Your task to perform on an android device: Go to location settings Image 0: 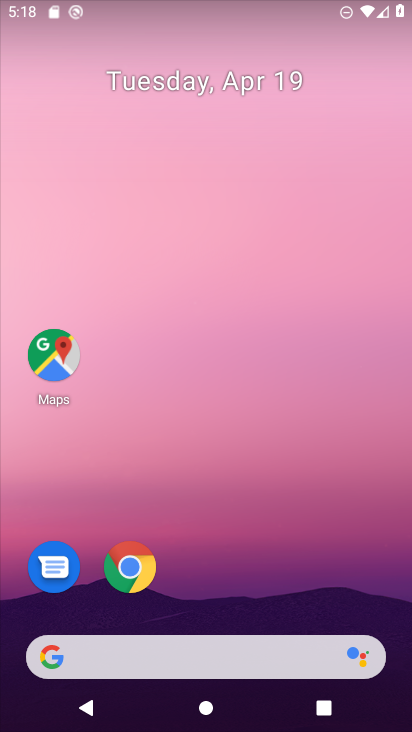
Step 0: drag from (299, 564) to (273, 1)
Your task to perform on an android device: Go to location settings Image 1: 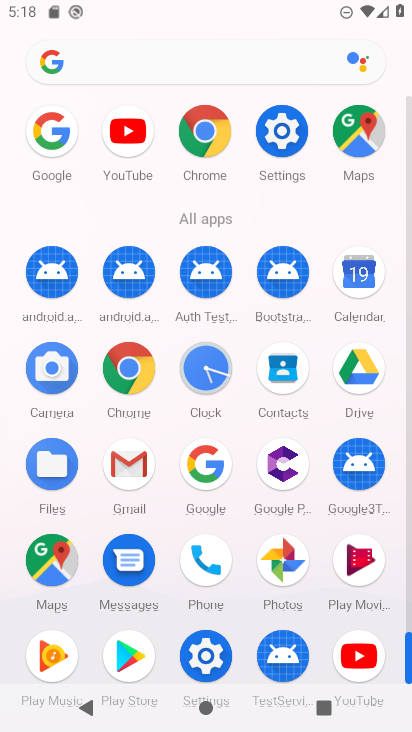
Step 1: click (280, 131)
Your task to perform on an android device: Go to location settings Image 2: 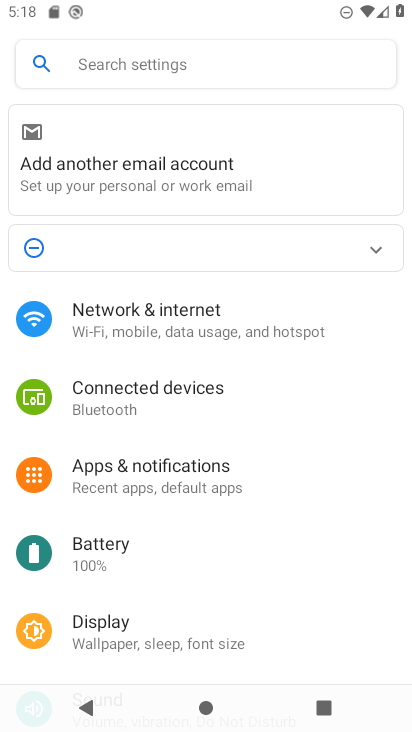
Step 2: drag from (237, 489) to (229, 95)
Your task to perform on an android device: Go to location settings Image 3: 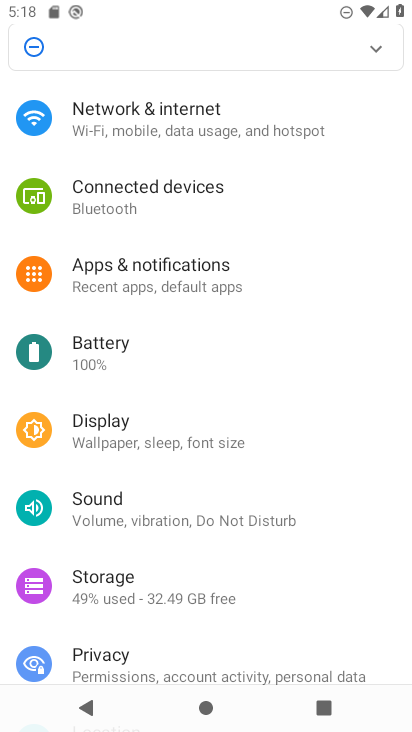
Step 3: drag from (196, 566) to (218, 201)
Your task to perform on an android device: Go to location settings Image 4: 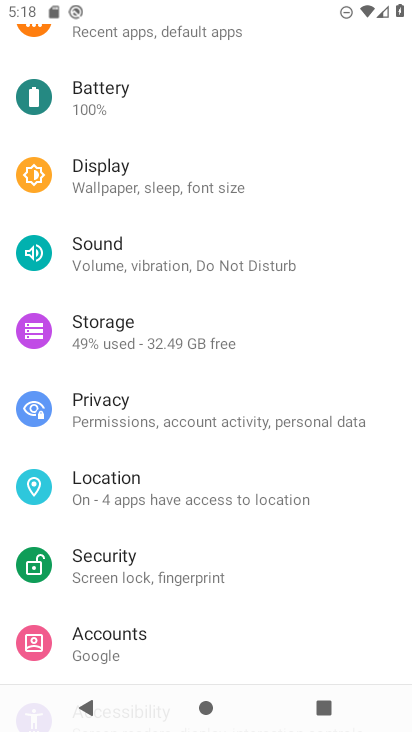
Step 4: click (164, 481)
Your task to perform on an android device: Go to location settings Image 5: 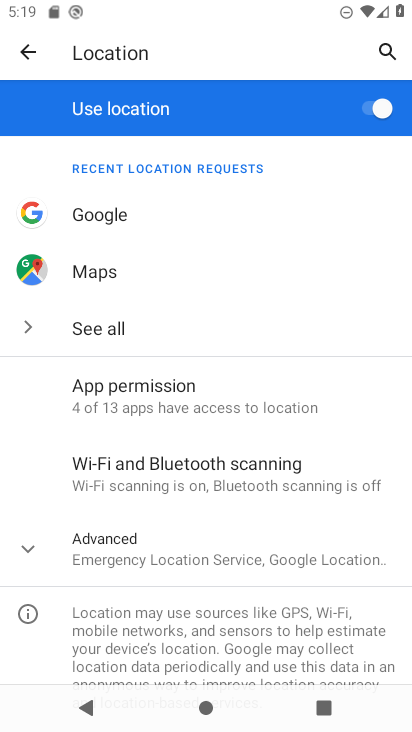
Step 5: task complete